Your task to perform on an android device: Open Chrome and go to the settings page Image 0: 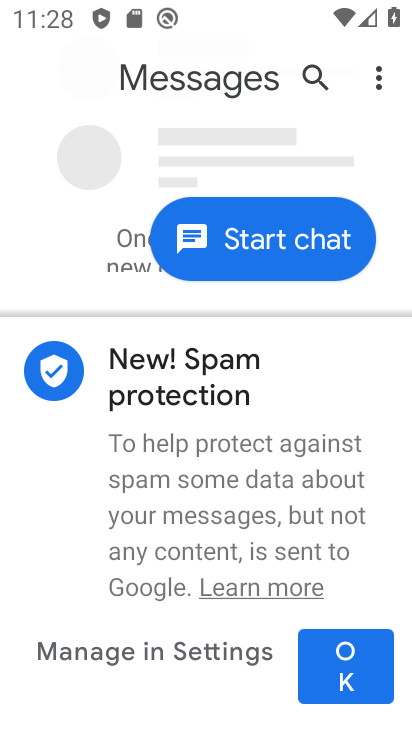
Step 0: drag from (359, 590) to (277, 175)
Your task to perform on an android device: Open Chrome and go to the settings page Image 1: 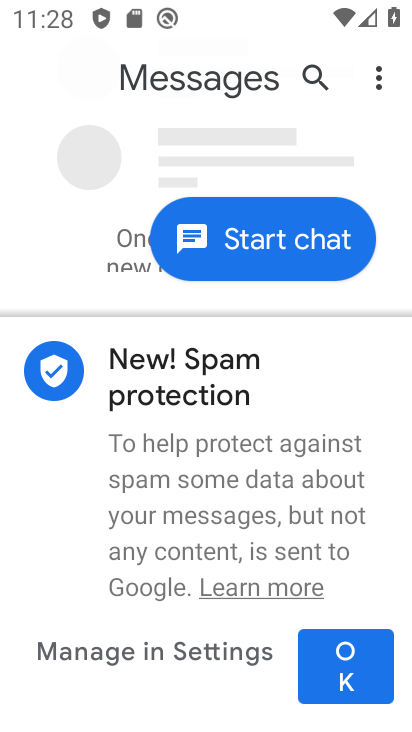
Step 1: press home button
Your task to perform on an android device: Open Chrome and go to the settings page Image 2: 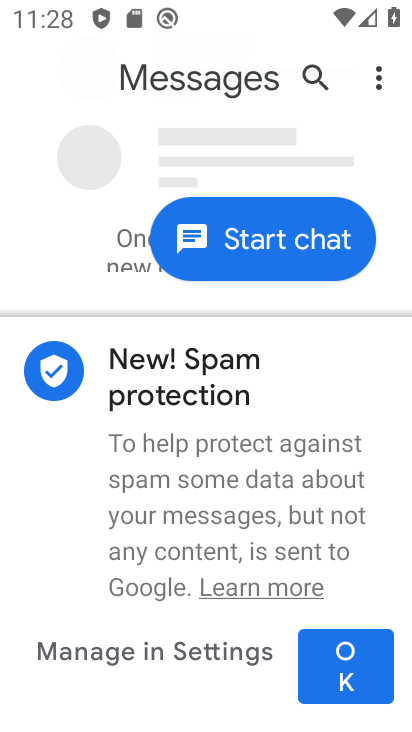
Step 2: press home button
Your task to perform on an android device: Open Chrome and go to the settings page Image 3: 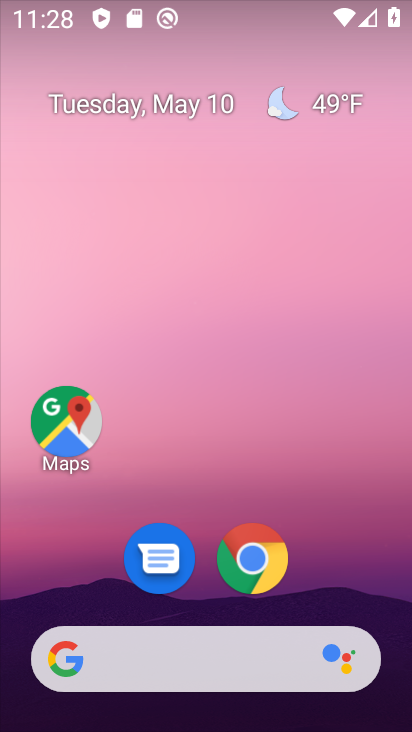
Step 3: click (245, 562)
Your task to perform on an android device: Open Chrome and go to the settings page Image 4: 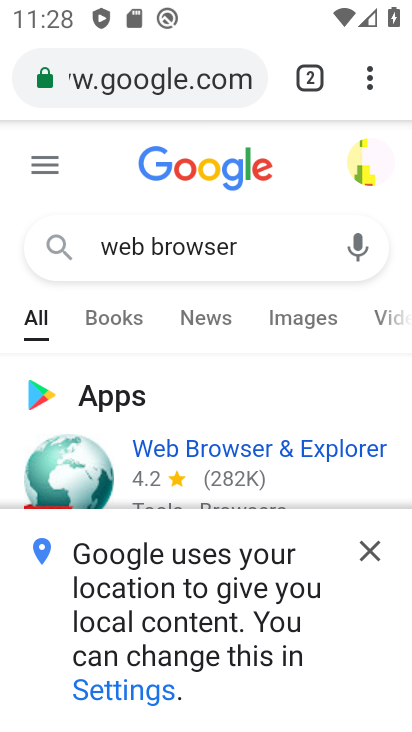
Step 4: click (362, 77)
Your task to perform on an android device: Open Chrome and go to the settings page Image 5: 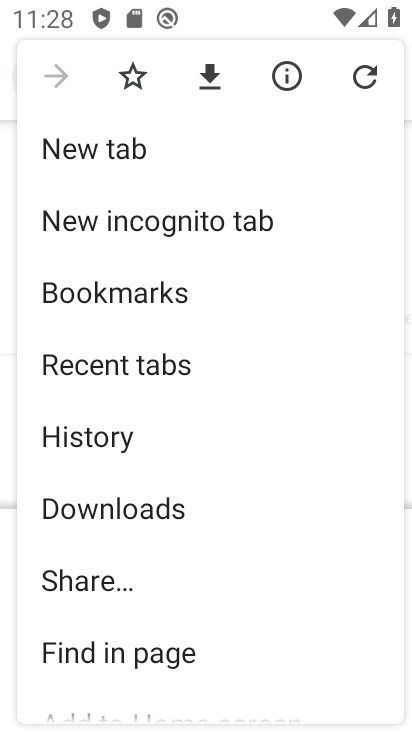
Step 5: drag from (109, 690) to (121, 464)
Your task to perform on an android device: Open Chrome and go to the settings page Image 6: 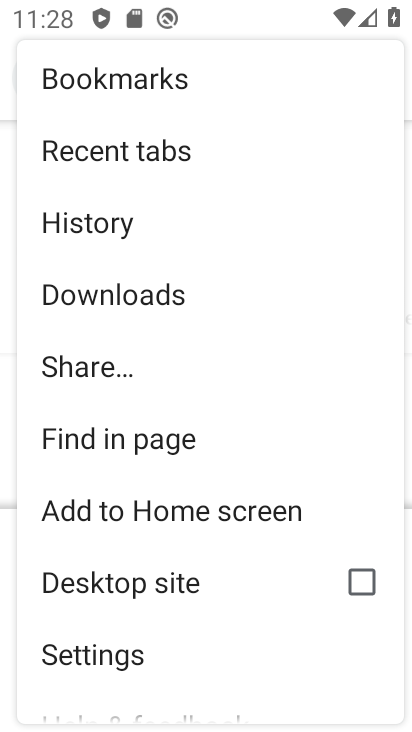
Step 6: click (98, 656)
Your task to perform on an android device: Open Chrome and go to the settings page Image 7: 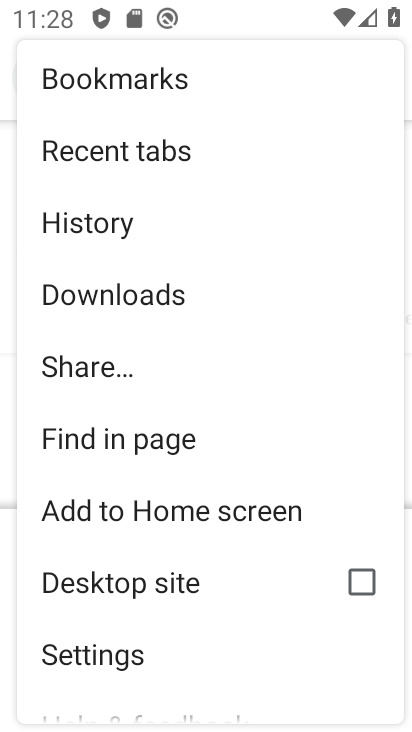
Step 7: click (98, 656)
Your task to perform on an android device: Open Chrome and go to the settings page Image 8: 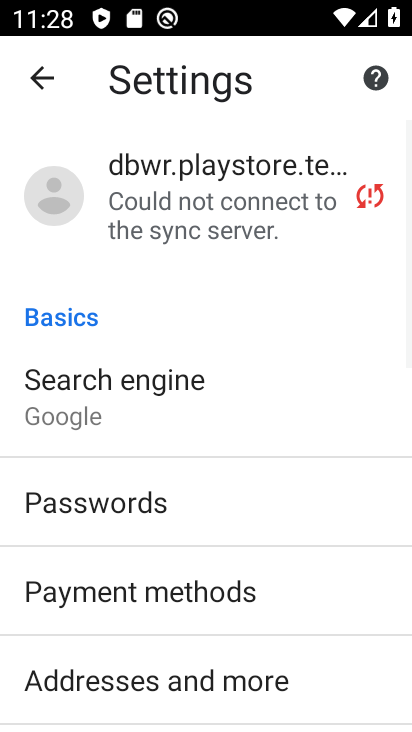
Step 8: task complete